Your task to perform on an android device: Open the Play Movies app and select the watchlist tab. Image 0: 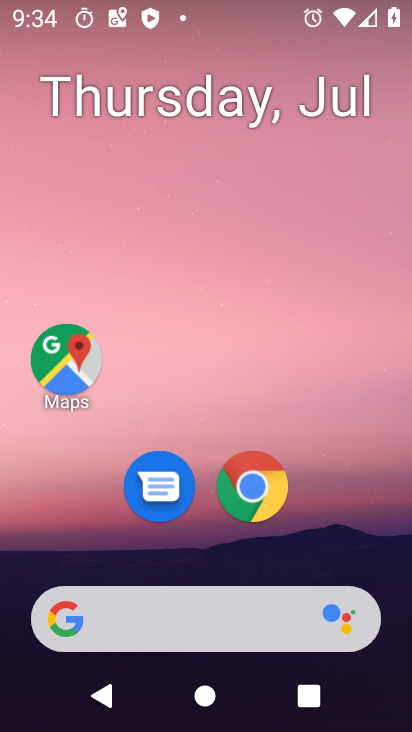
Step 0: drag from (218, 557) to (251, 163)
Your task to perform on an android device: Open the Play Movies app and select the watchlist tab. Image 1: 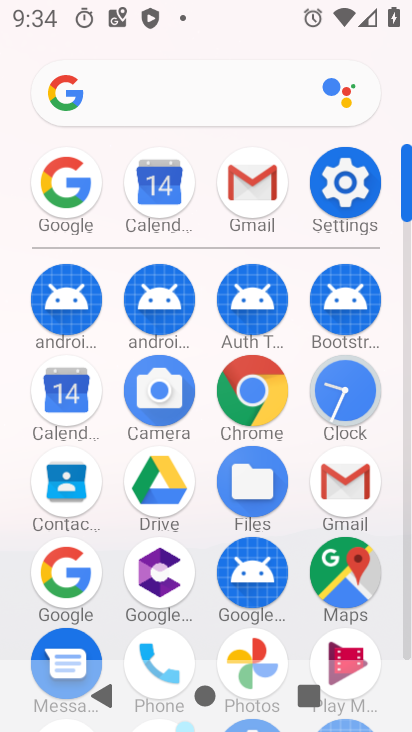
Step 1: drag from (206, 493) to (212, 218)
Your task to perform on an android device: Open the Play Movies app and select the watchlist tab. Image 2: 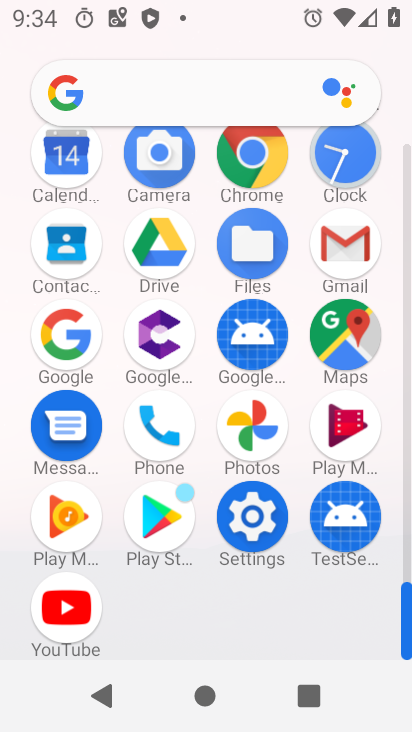
Step 2: click (326, 457)
Your task to perform on an android device: Open the Play Movies app and select the watchlist tab. Image 3: 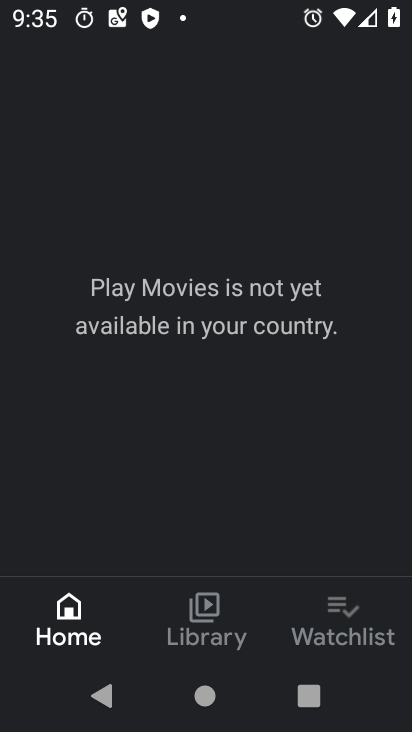
Step 3: click (373, 648)
Your task to perform on an android device: Open the Play Movies app and select the watchlist tab. Image 4: 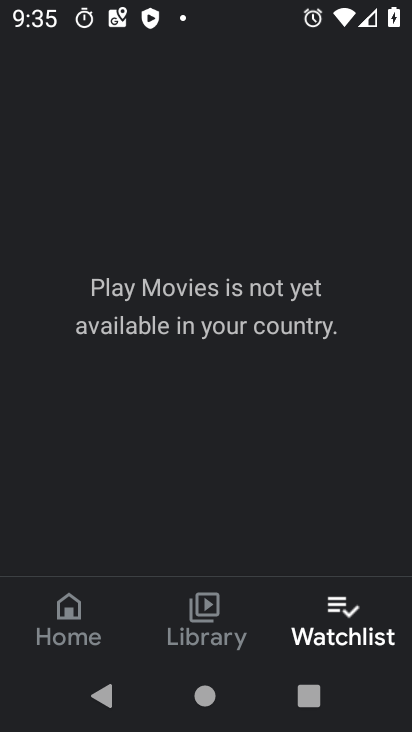
Step 4: task complete